Your task to perform on an android device: show emergency info Image 0: 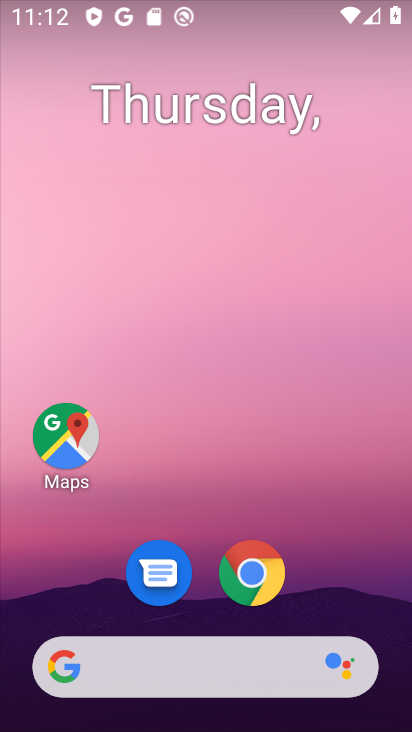
Step 0: drag from (192, 629) to (191, 218)
Your task to perform on an android device: show emergency info Image 1: 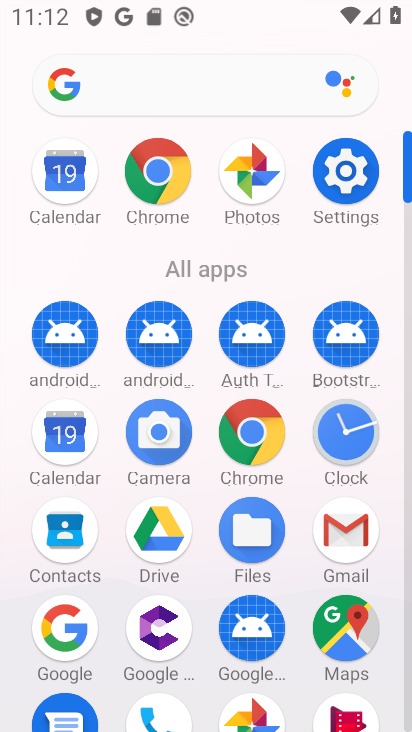
Step 1: click (73, 161)
Your task to perform on an android device: show emergency info Image 2: 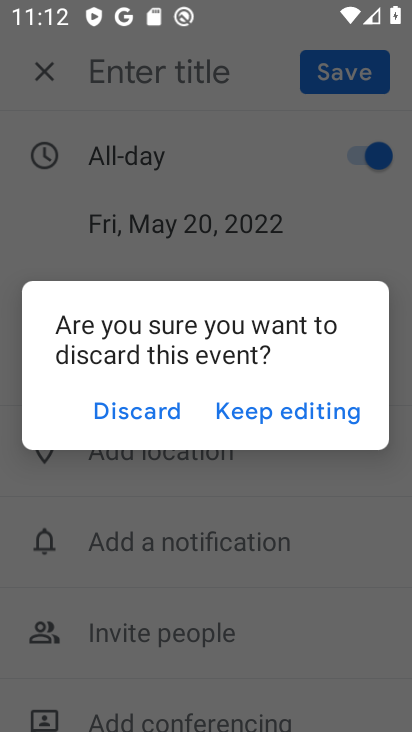
Step 2: click (127, 413)
Your task to perform on an android device: show emergency info Image 3: 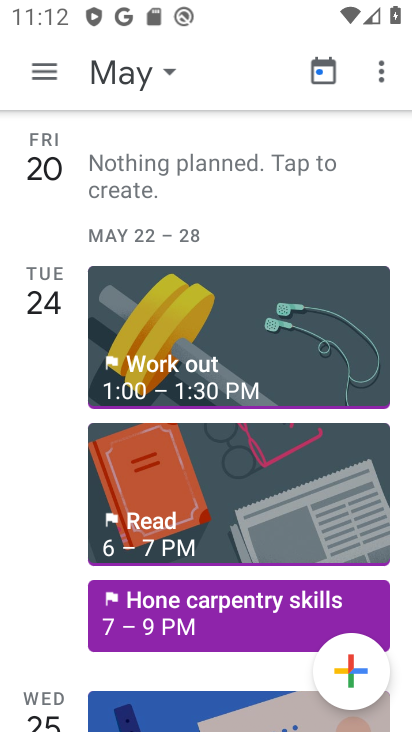
Step 3: click (160, 73)
Your task to perform on an android device: show emergency info Image 4: 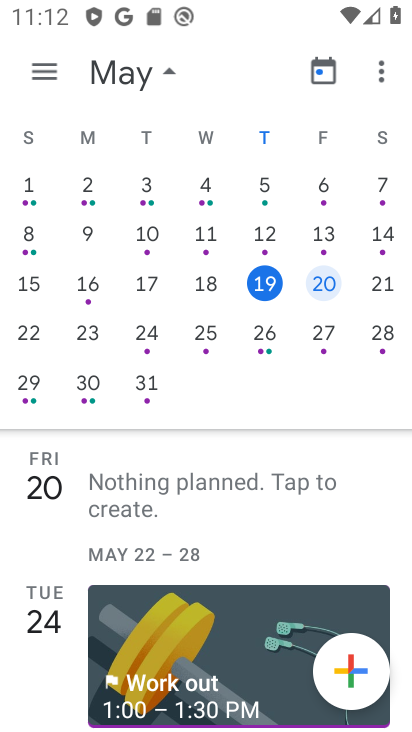
Step 4: click (375, 332)
Your task to perform on an android device: show emergency info Image 5: 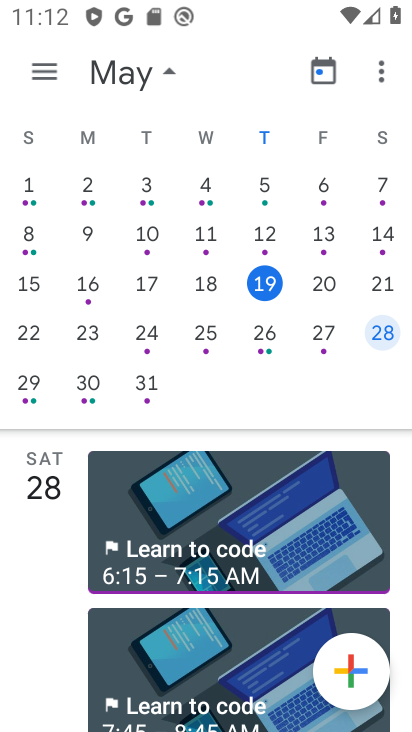
Step 5: task complete